Your task to perform on an android device: delete a single message in the gmail app Image 0: 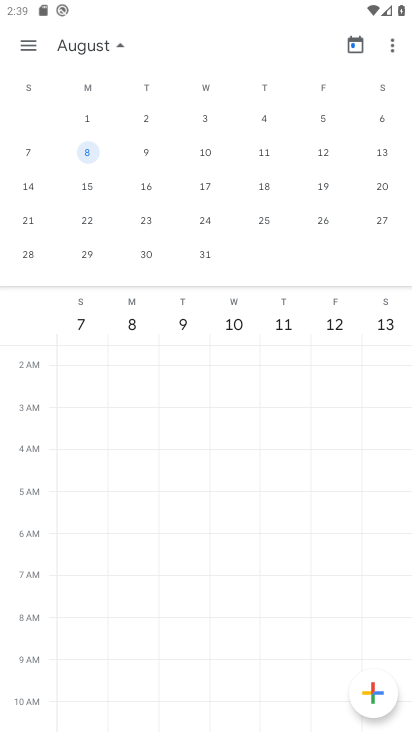
Step 0: press home button
Your task to perform on an android device: delete a single message in the gmail app Image 1: 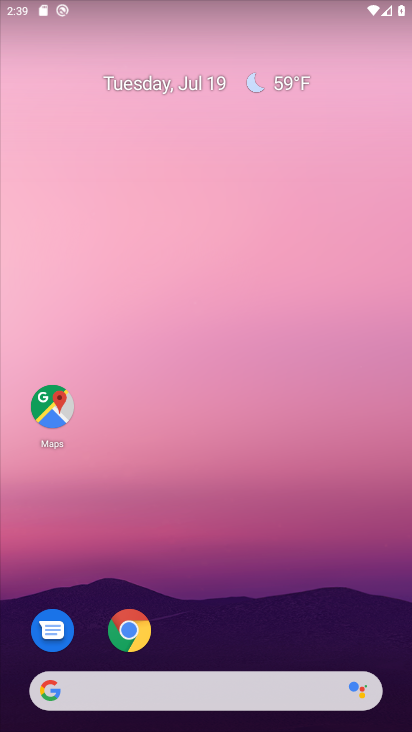
Step 1: drag from (217, 596) to (169, 82)
Your task to perform on an android device: delete a single message in the gmail app Image 2: 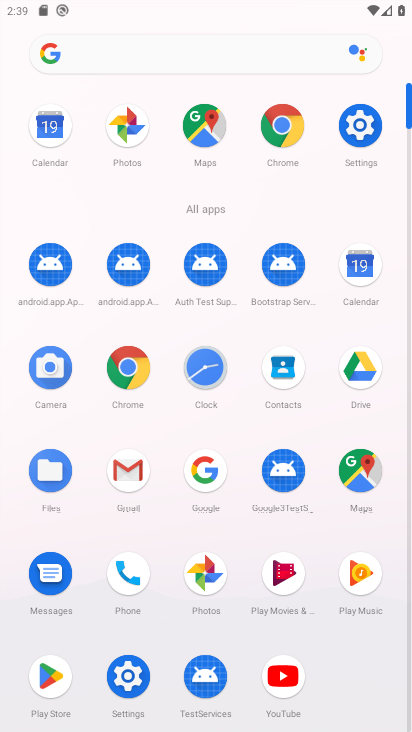
Step 2: click (133, 465)
Your task to perform on an android device: delete a single message in the gmail app Image 3: 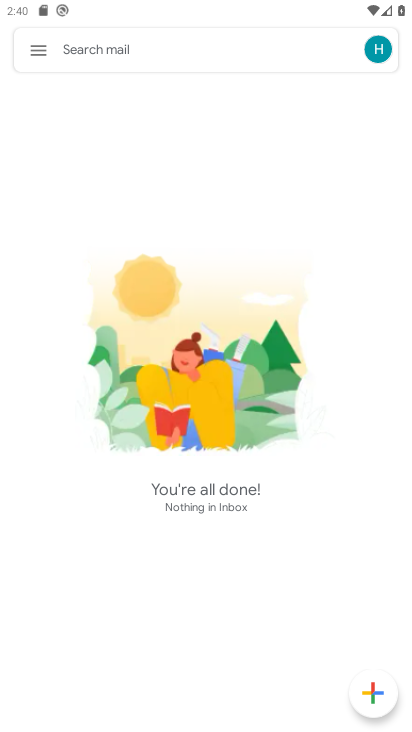
Step 3: click (35, 46)
Your task to perform on an android device: delete a single message in the gmail app Image 4: 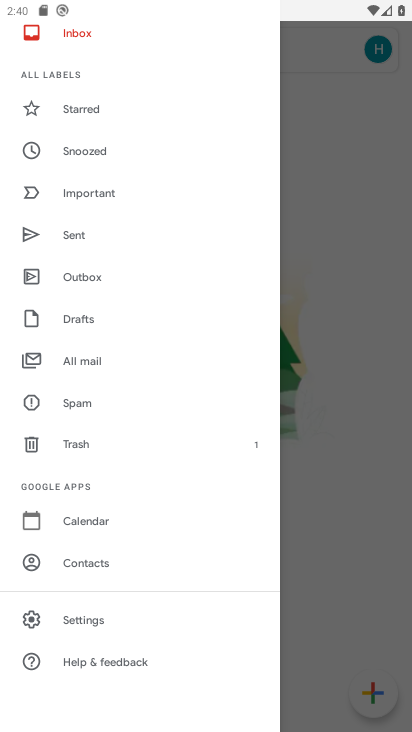
Step 4: click (87, 357)
Your task to perform on an android device: delete a single message in the gmail app Image 5: 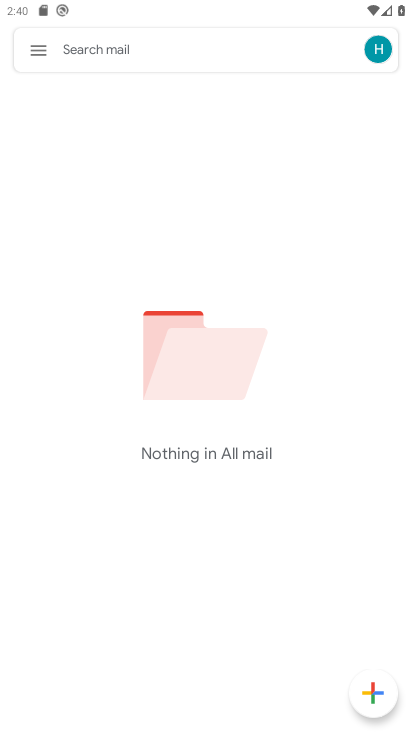
Step 5: task complete